Your task to perform on an android device: Go to ESPN.com Image 0: 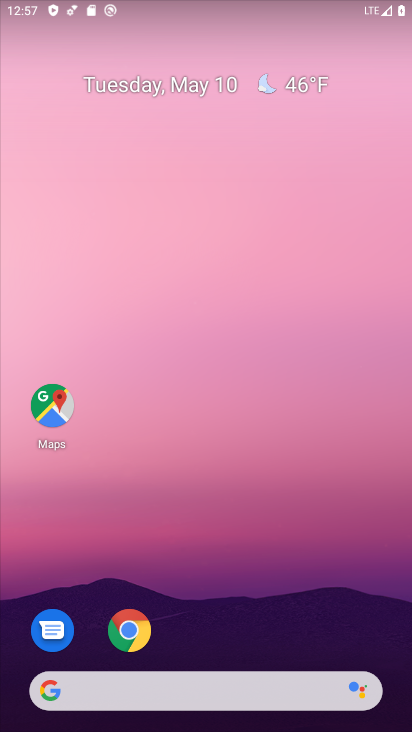
Step 0: click (130, 625)
Your task to perform on an android device: Go to ESPN.com Image 1: 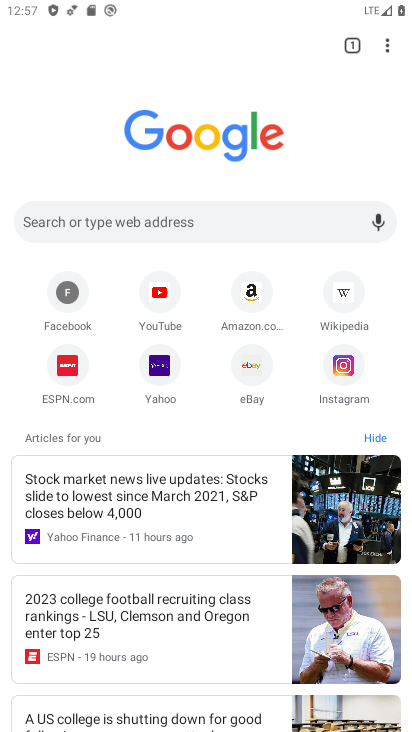
Step 1: click (62, 376)
Your task to perform on an android device: Go to ESPN.com Image 2: 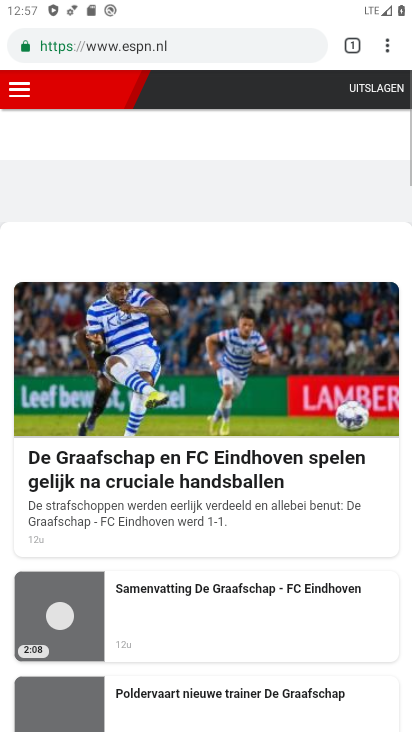
Step 2: task complete